Your task to perform on an android device: Open Reddit.com Image 0: 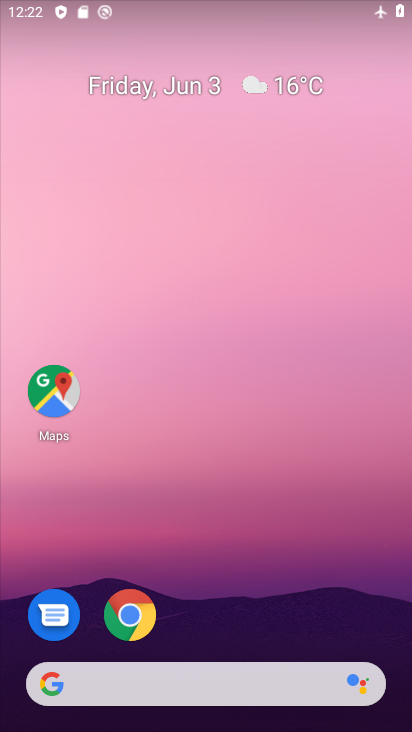
Step 0: drag from (236, 606) to (241, 226)
Your task to perform on an android device: Open Reddit.com Image 1: 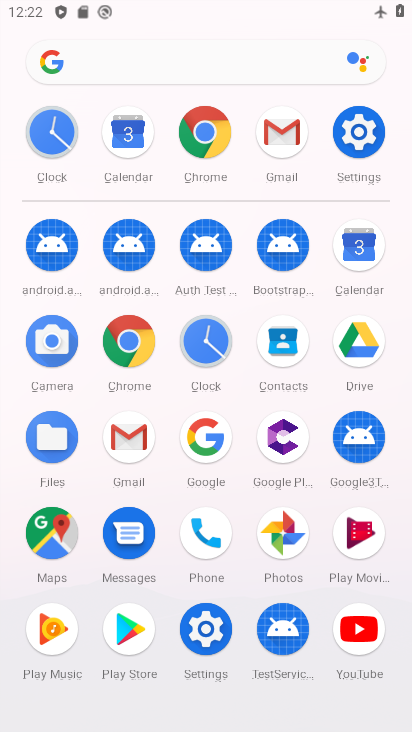
Step 1: click (207, 134)
Your task to perform on an android device: Open Reddit.com Image 2: 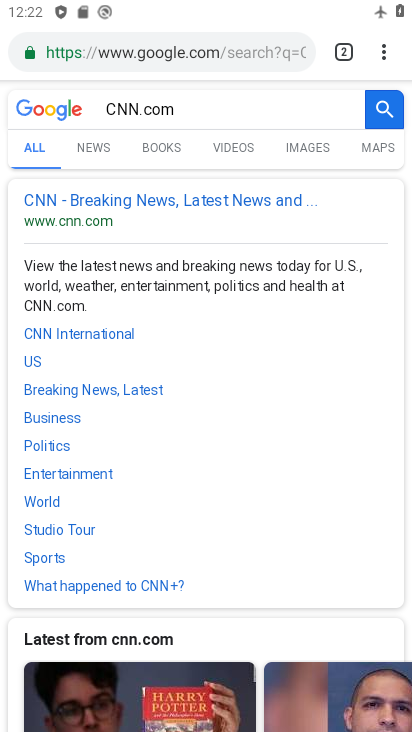
Step 2: click (378, 57)
Your task to perform on an android device: Open Reddit.com Image 3: 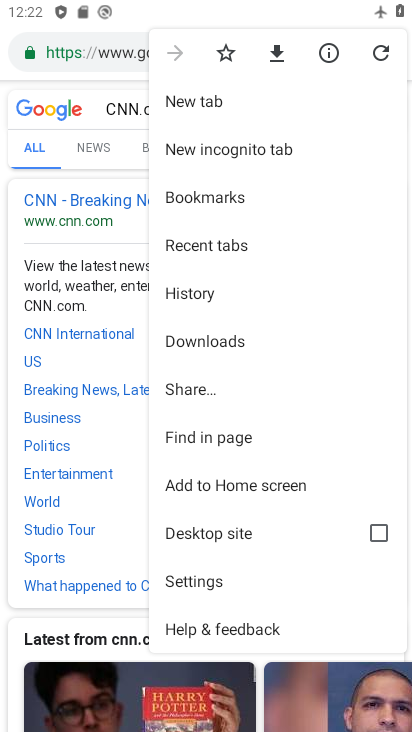
Step 3: click (210, 105)
Your task to perform on an android device: Open Reddit.com Image 4: 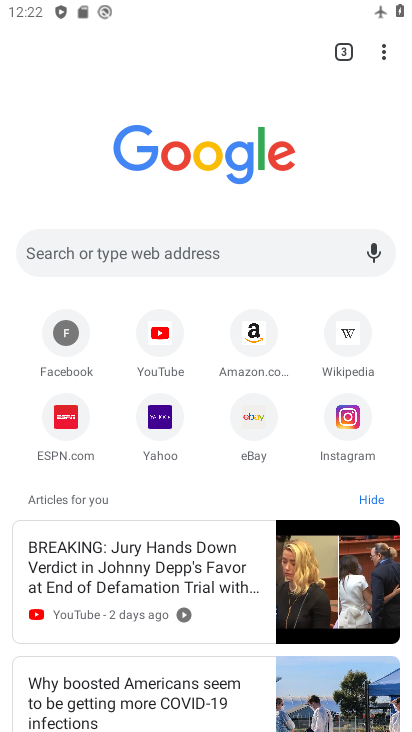
Step 4: click (197, 248)
Your task to perform on an android device: Open Reddit.com Image 5: 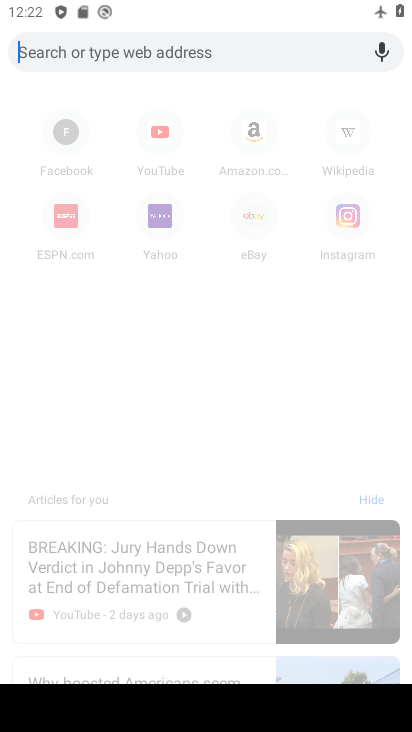
Step 5: type " Reddit.com"
Your task to perform on an android device: Open Reddit.com Image 6: 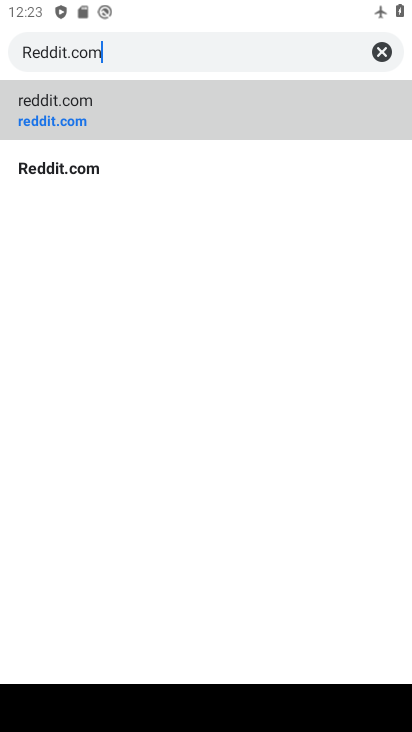
Step 6: click (144, 89)
Your task to perform on an android device: Open Reddit.com Image 7: 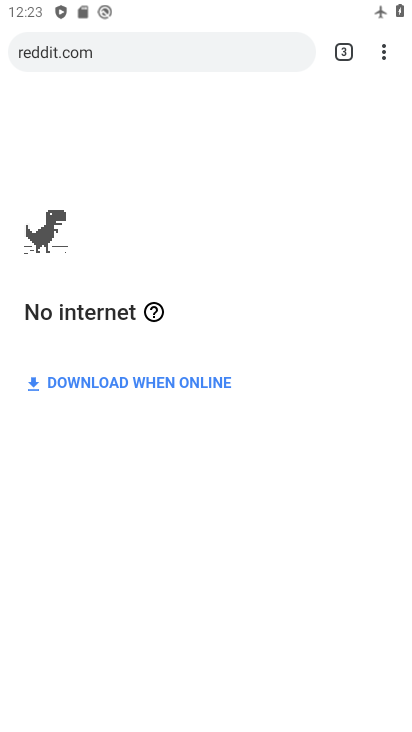
Step 7: task complete